Your task to perform on an android device: open device folders in google photos Image 0: 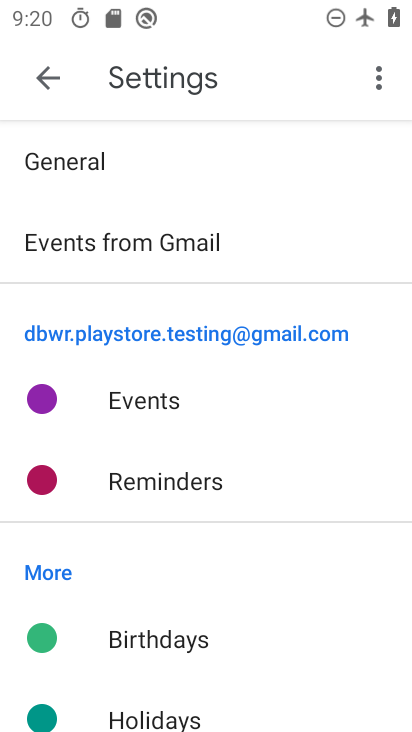
Step 0: press home button
Your task to perform on an android device: open device folders in google photos Image 1: 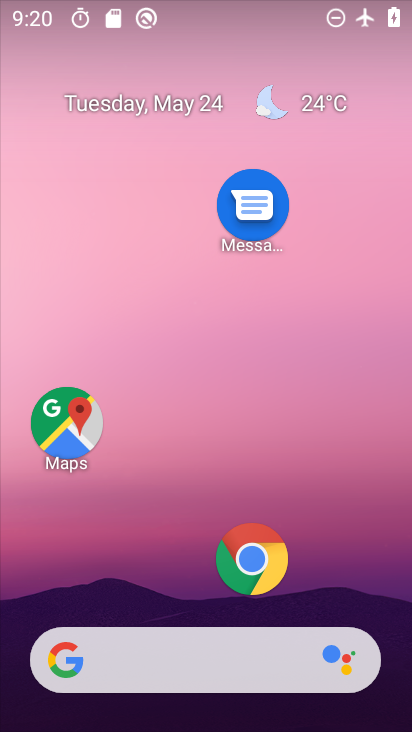
Step 1: drag from (185, 595) to (184, 192)
Your task to perform on an android device: open device folders in google photos Image 2: 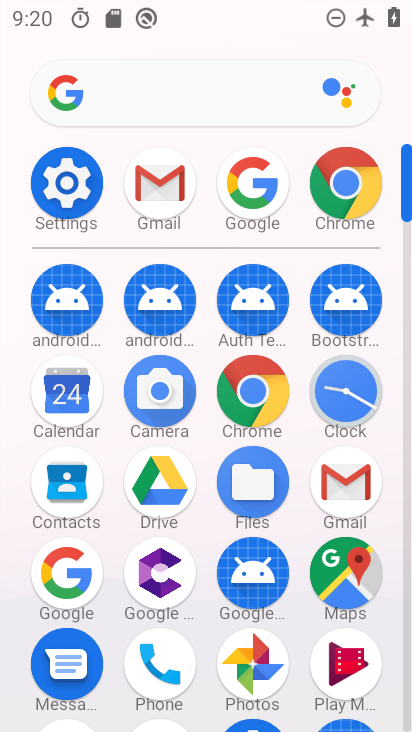
Step 2: click (264, 660)
Your task to perform on an android device: open device folders in google photos Image 3: 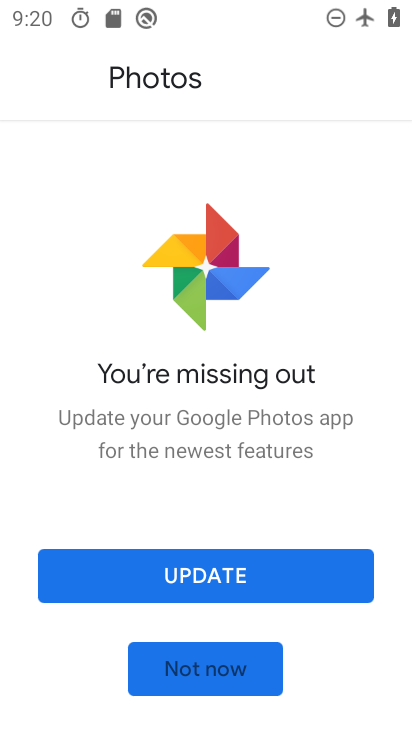
Step 3: click (264, 660)
Your task to perform on an android device: open device folders in google photos Image 4: 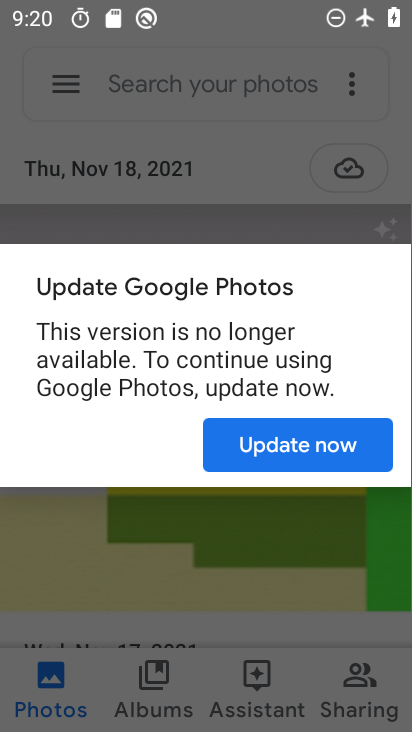
Step 4: click (287, 439)
Your task to perform on an android device: open device folders in google photos Image 5: 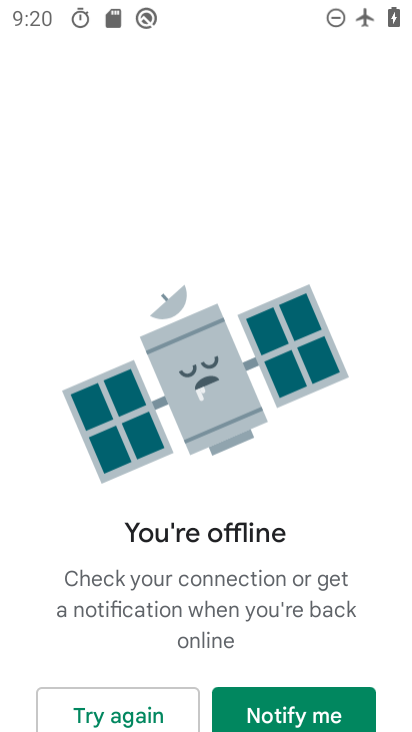
Step 5: press back button
Your task to perform on an android device: open device folders in google photos Image 6: 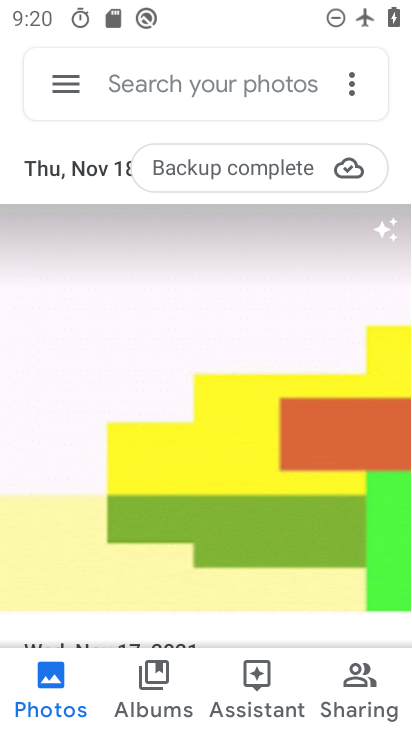
Step 6: click (77, 79)
Your task to perform on an android device: open device folders in google photos Image 7: 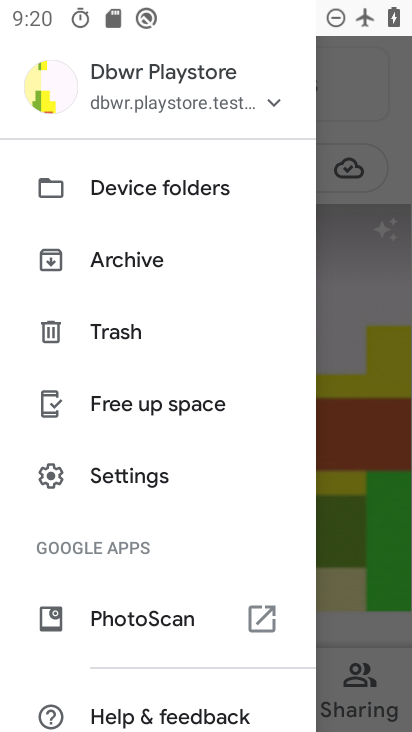
Step 7: click (145, 193)
Your task to perform on an android device: open device folders in google photos Image 8: 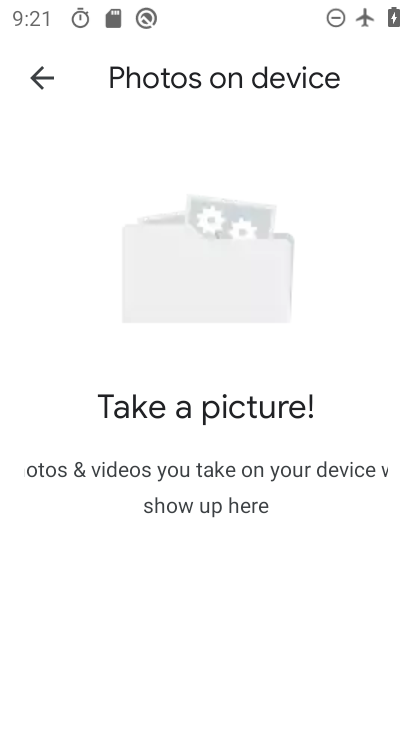
Step 8: task complete